Your task to perform on an android device: Go to Yahoo.com Image 0: 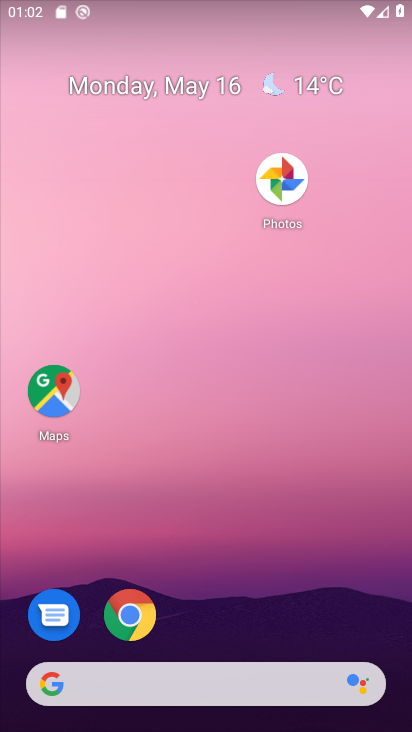
Step 0: drag from (328, 625) to (362, 117)
Your task to perform on an android device: Go to Yahoo.com Image 1: 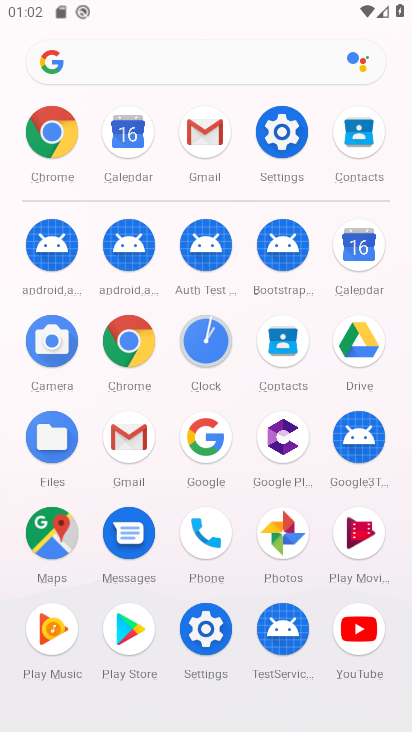
Step 1: click (121, 345)
Your task to perform on an android device: Go to Yahoo.com Image 2: 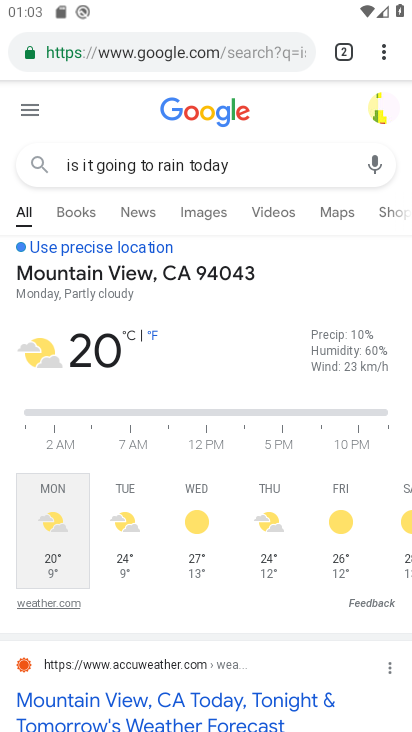
Step 2: click (181, 63)
Your task to perform on an android device: Go to Yahoo.com Image 3: 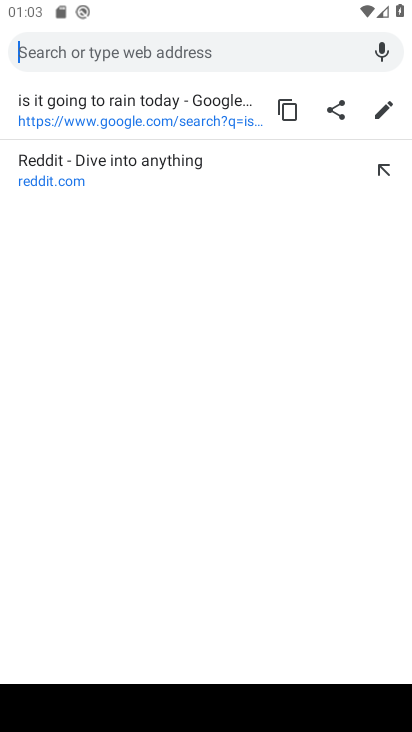
Step 3: type "go to yahoo.com"
Your task to perform on an android device: Go to Yahoo.com Image 4: 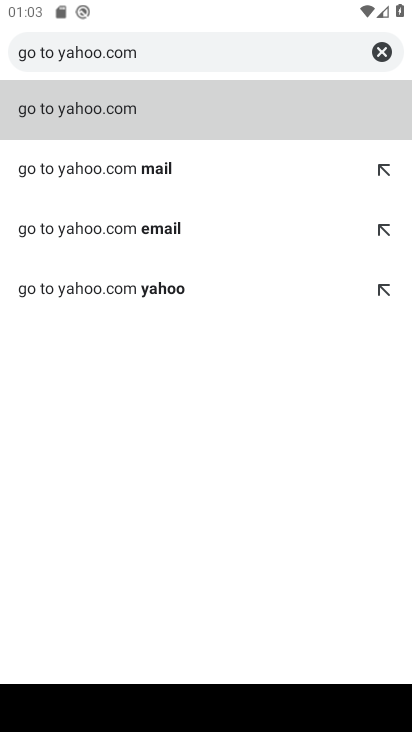
Step 4: click (97, 121)
Your task to perform on an android device: Go to Yahoo.com Image 5: 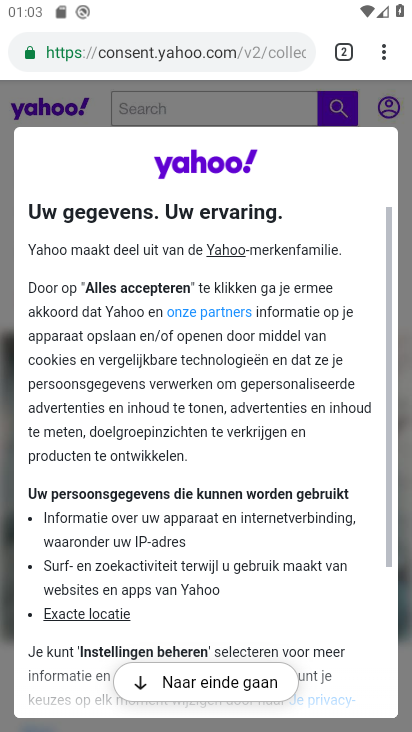
Step 5: click (255, 679)
Your task to perform on an android device: Go to Yahoo.com Image 6: 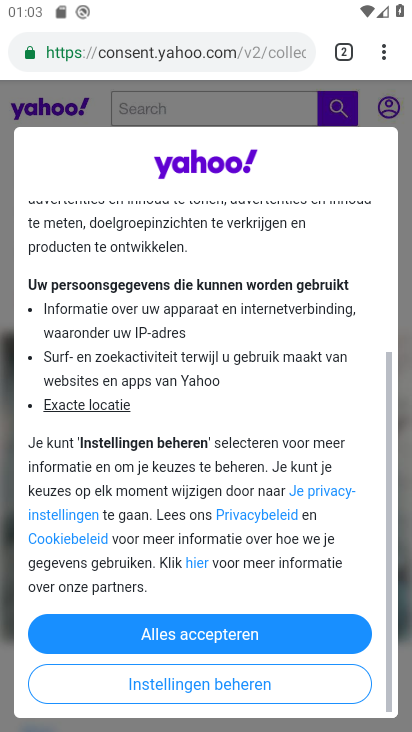
Step 6: click (254, 631)
Your task to perform on an android device: Go to Yahoo.com Image 7: 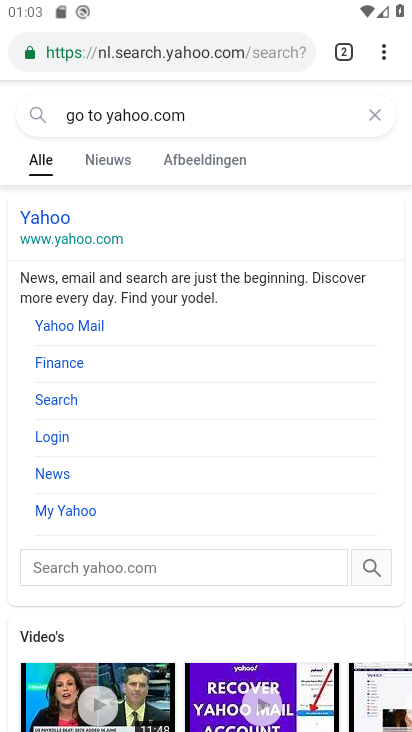
Step 7: task complete